Your task to perform on an android device: open a bookmark in the chrome app Image 0: 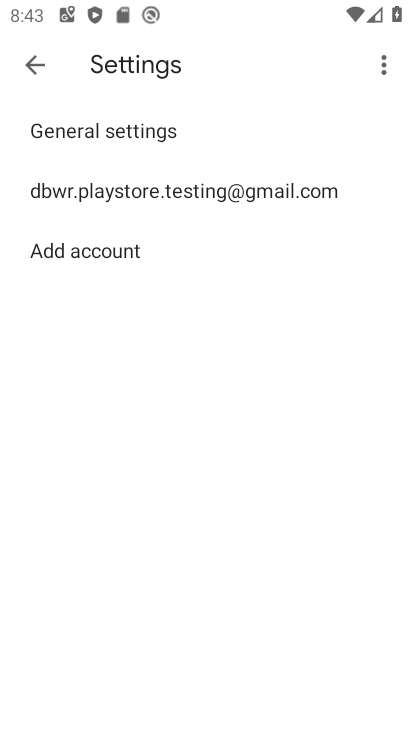
Step 0: press home button
Your task to perform on an android device: open a bookmark in the chrome app Image 1: 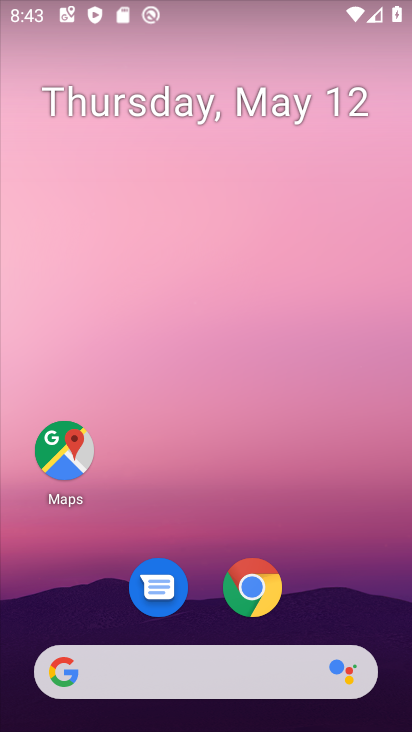
Step 1: click (256, 582)
Your task to perform on an android device: open a bookmark in the chrome app Image 2: 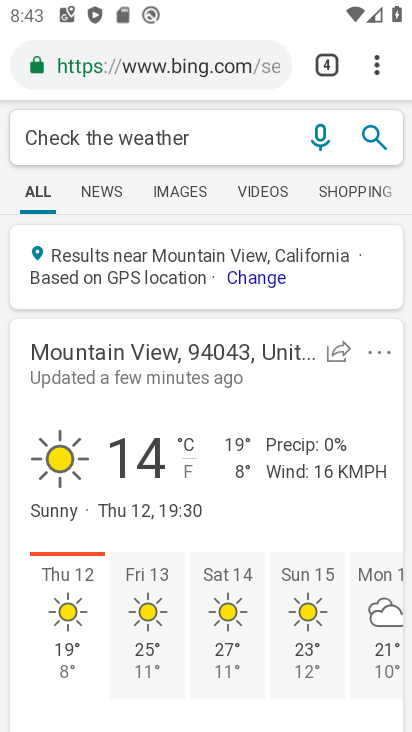
Step 2: click (367, 62)
Your task to perform on an android device: open a bookmark in the chrome app Image 3: 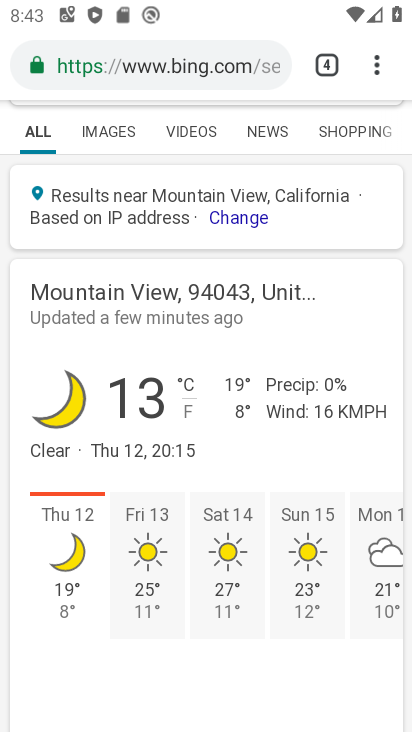
Step 3: click (402, 56)
Your task to perform on an android device: open a bookmark in the chrome app Image 4: 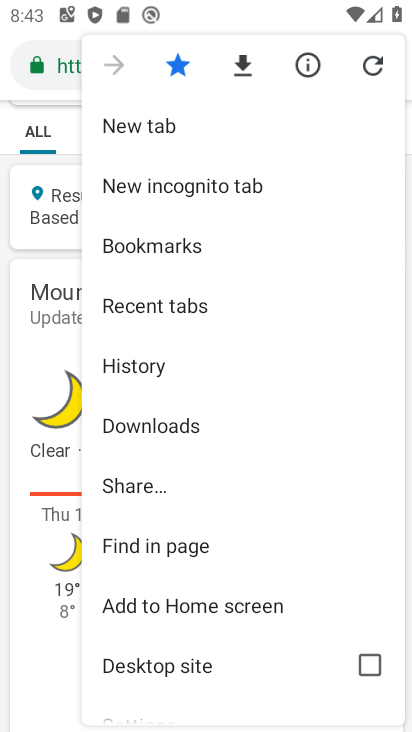
Step 4: click (201, 247)
Your task to perform on an android device: open a bookmark in the chrome app Image 5: 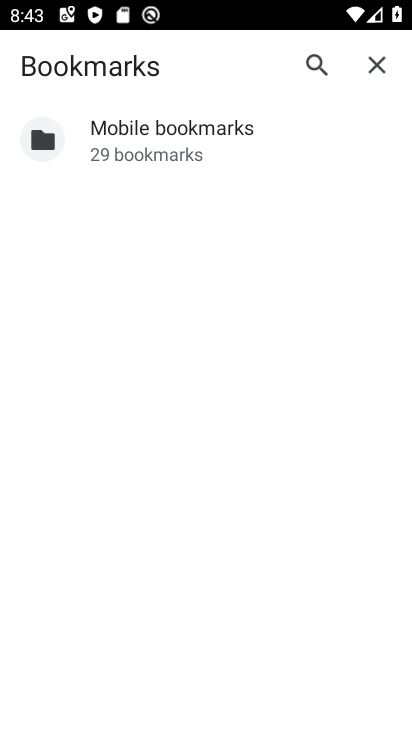
Step 5: click (146, 160)
Your task to perform on an android device: open a bookmark in the chrome app Image 6: 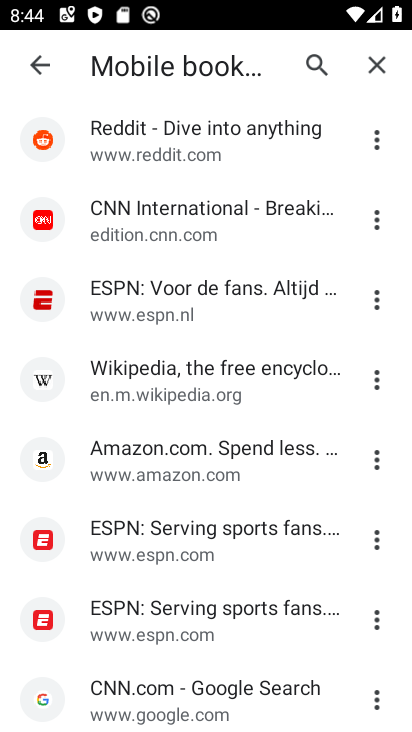
Step 6: task complete